Your task to perform on an android device: empty trash in google photos Image 0: 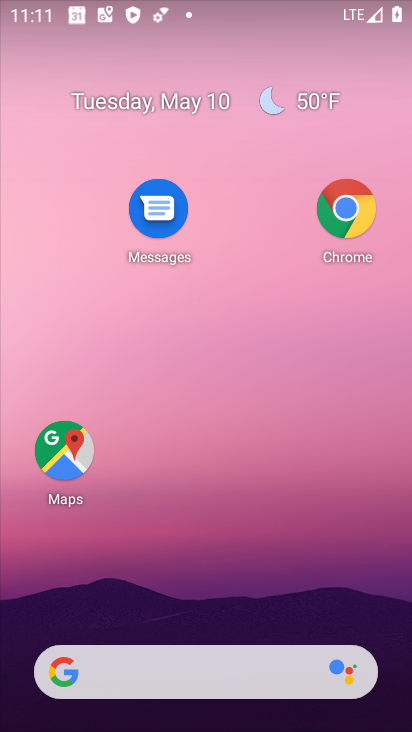
Step 0: drag from (231, 621) to (226, 4)
Your task to perform on an android device: empty trash in google photos Image 1: 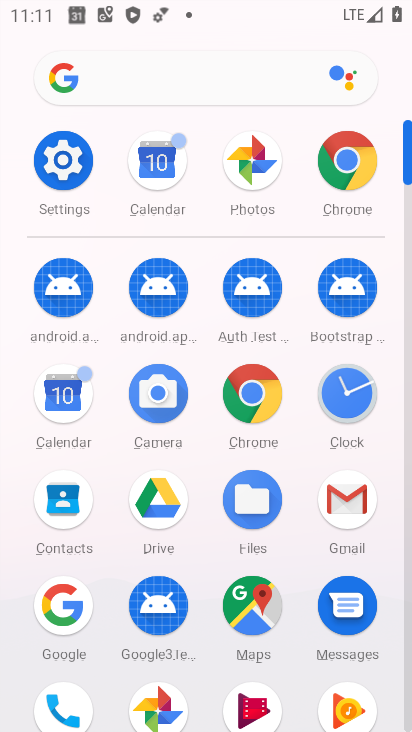
Step 1: click (247, 177)
Your task to perform on an android device: empty trash in google photos Image 2: 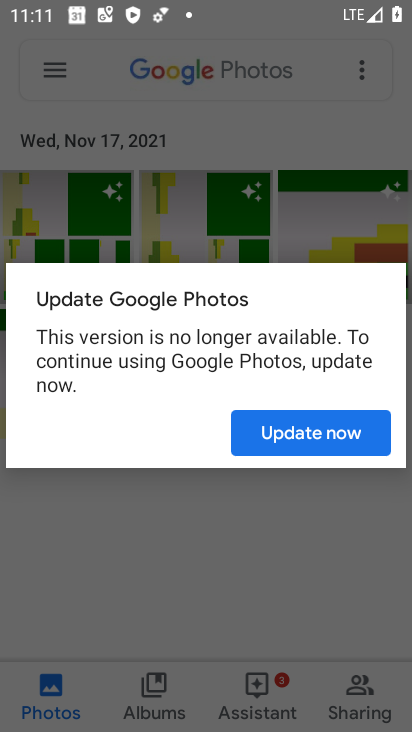
Step 2: click (333, 416)
Your task to perform on an android device: empty trash in google photos Image 3: 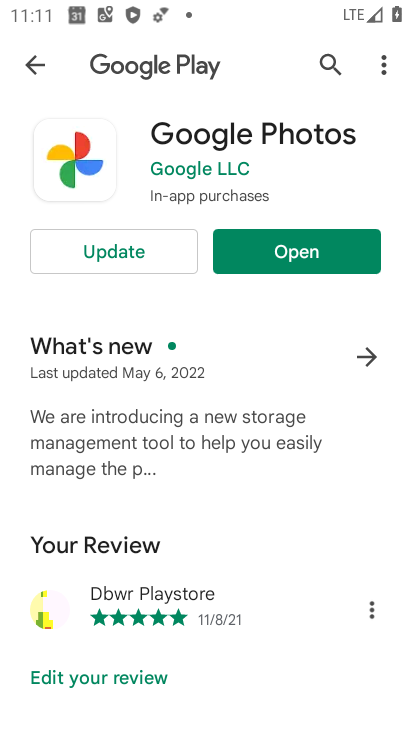
Step 3: click (301, 245)
Your task to perform on an android device: empty trash in google photos Image 4: 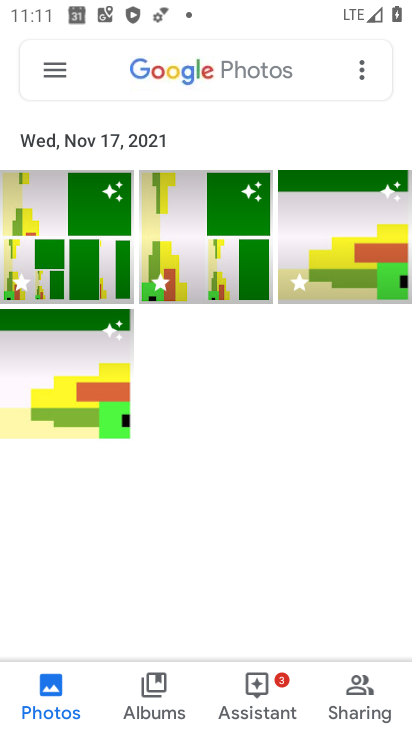
Step 4: click (53, 70)
Your task to perform on an android device: empty trash in google photos Image 5: 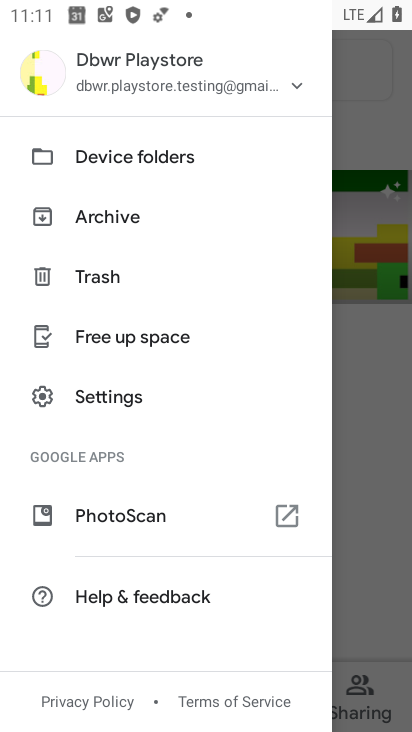
Step 5: click (92, 273)
Your task to perform on an android device: empty trash in google photos Image 6: 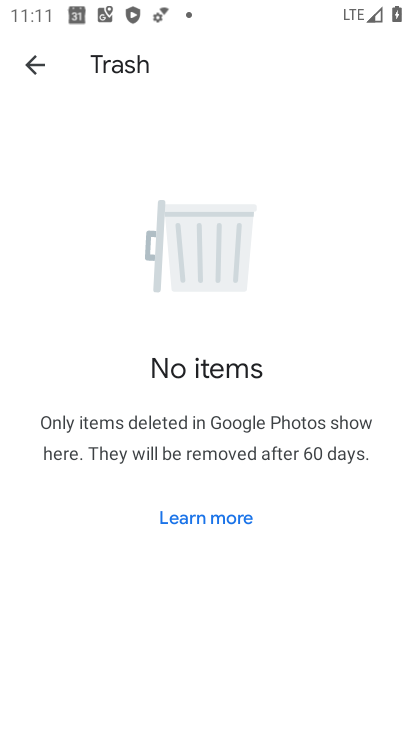
Step 6: task complete